Your task to perform on an android device: visit the assistant section in the google photos Image 0: 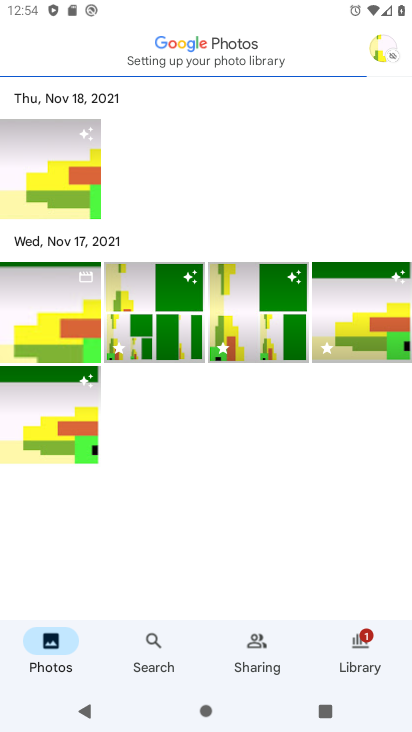
Step 0: click (355, 637)
Your task to perform on an android device: visit the assistant section in the google photos Image 1: 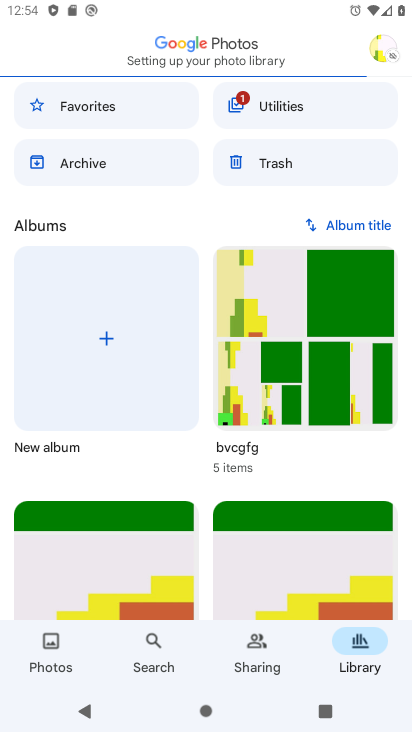
Step 1: task complete